Your task to perform on an android device: Open Reddit.com Image 0: 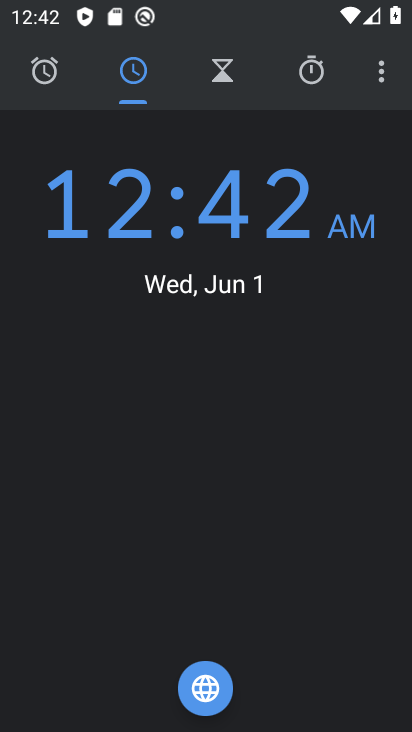
Step 0: press home button
Your task to perform on an android device: Open Reddit.com Image 1: 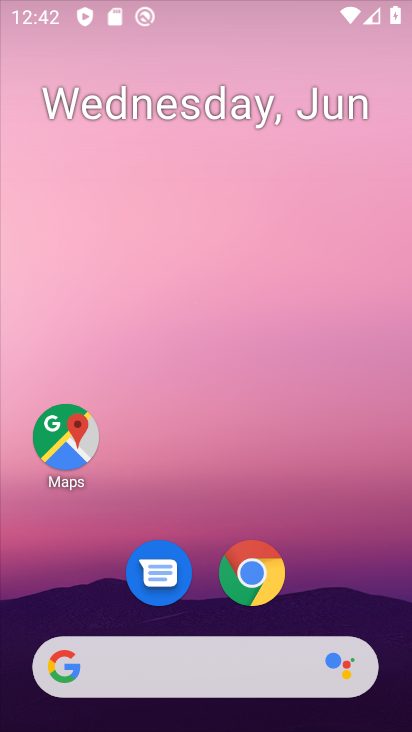
Step 1: drag from (284, 567) to (299, 144)
Your task to perform on an android device: Open Reddit.com Image 2: 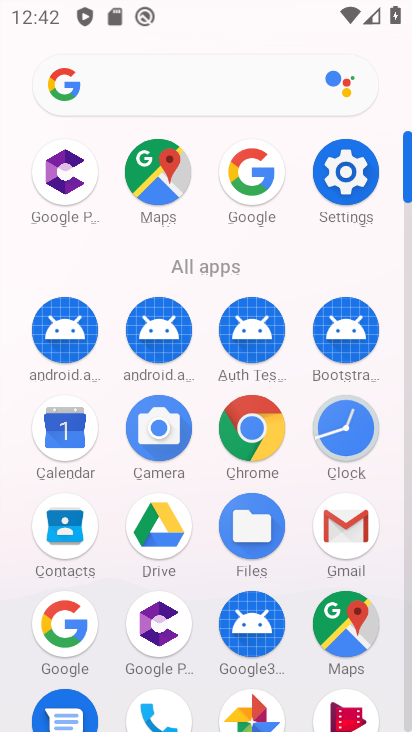
Step 2: click (235, 446)
Your task to perform on an android device: Open Reddit.com Image 3: 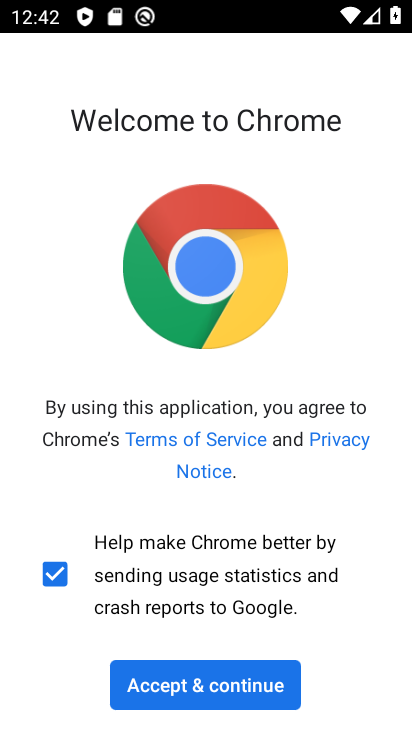
Step 3: click (276, 665)
Your task to perform on an android device: Open Reddit.com Image 4: 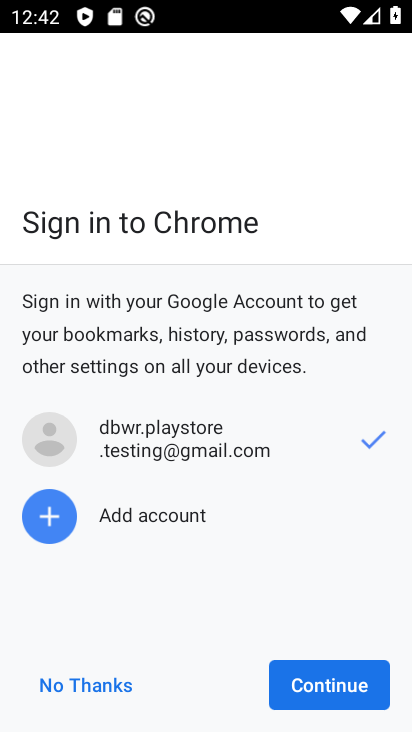
Step 4: click (319, 679)
Your task to perform on an android device: Open Reddit.com Image 5: 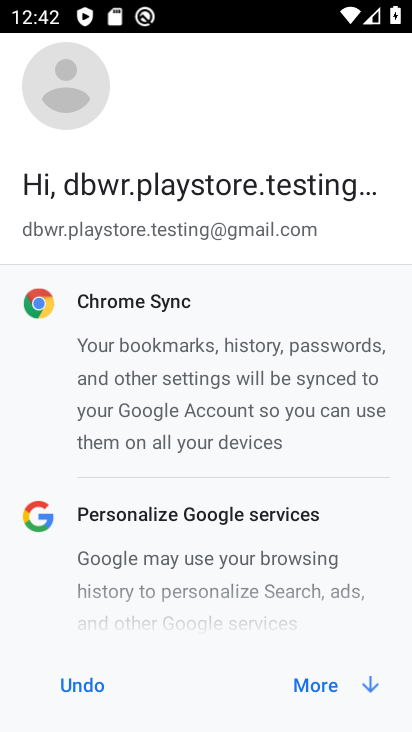
Step 5: click (322, 693)
Your task to perform on an android device: Open Reddit.com Image 6: 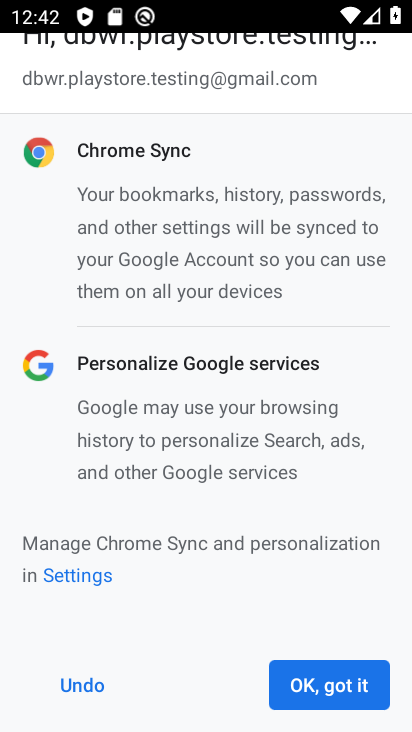
Step 6: click (325, 686)
Your task to perform on an android device: Open Reddit.com Image 7: 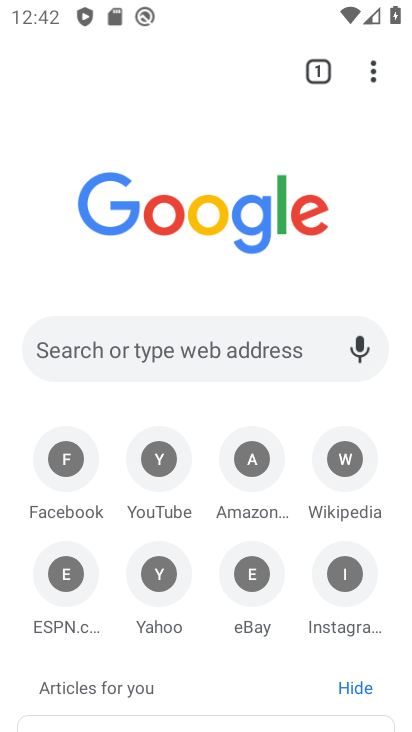
Step 7: click (135, 357)
Your task to perform on an android device: Open Reddit.com Image 8: 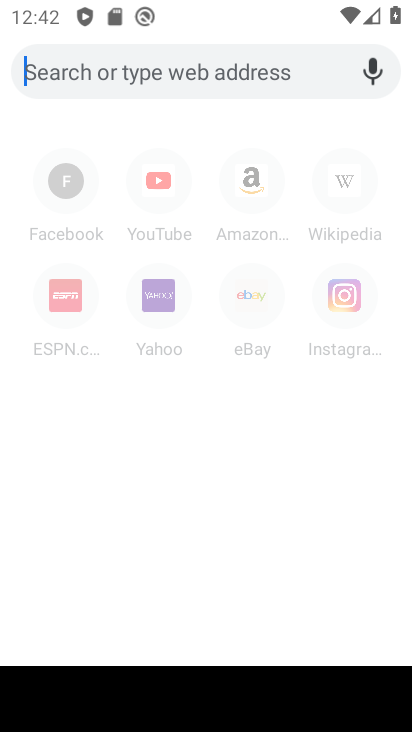
Step 8: type "open reddit.com"
Your task to perform on an android device: Open Reddit.com Image 9: 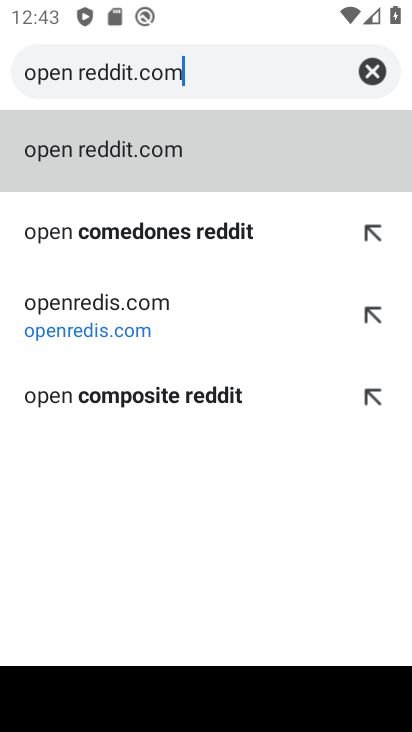
Step 9: click (99, 150)
Your task to perform on an android device: Open Reddit.com Image 10: 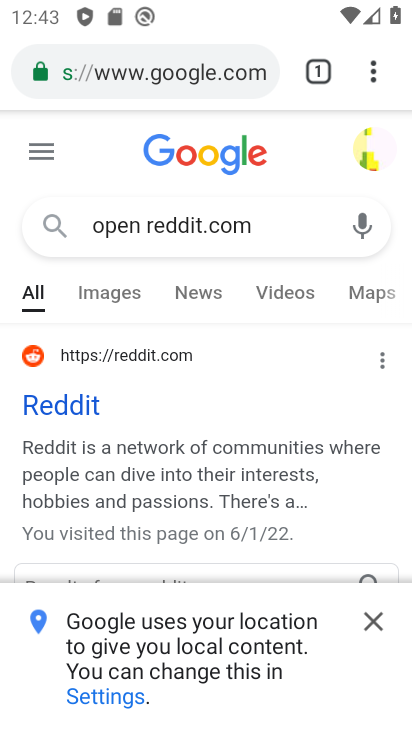
Step 10: click (366, 628)
Your task to perform on an android device: Open Reddit.com Image 11: 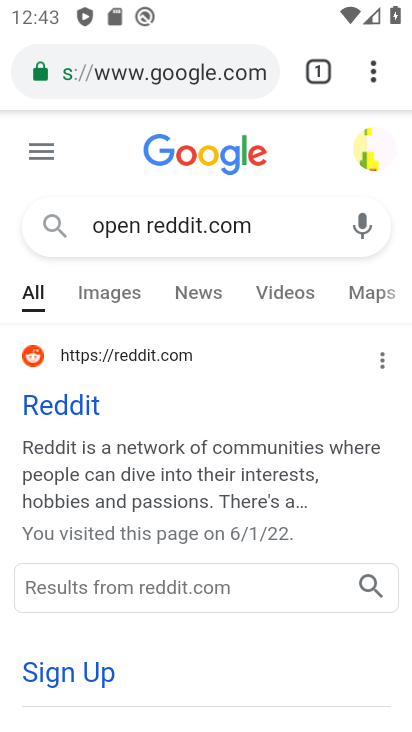
Step 11: click (45, 405)
Your task to perform on an android device: Open Reddit.com Image 12: 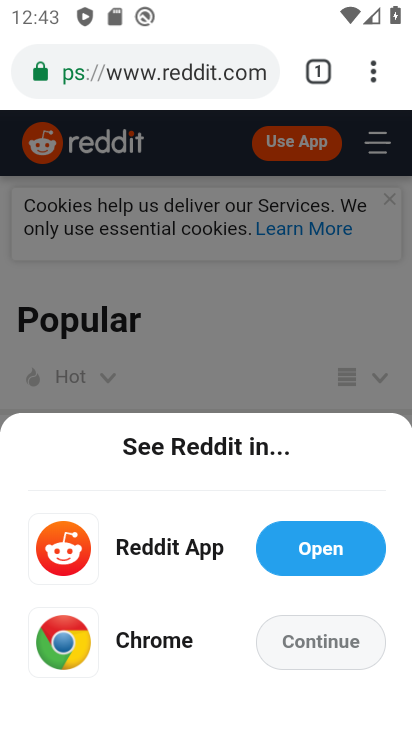
Step 12: task complete